Your task to perform on an android device: Go to Google Image 0: 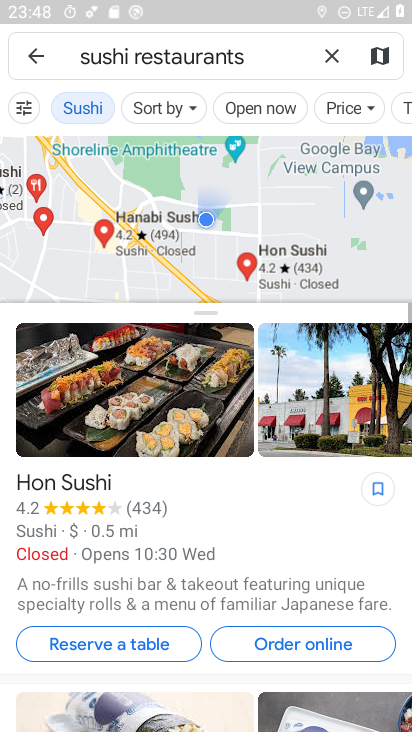
Step 0: press home button
Your task to perform on an android device: Go to Google Image 1: 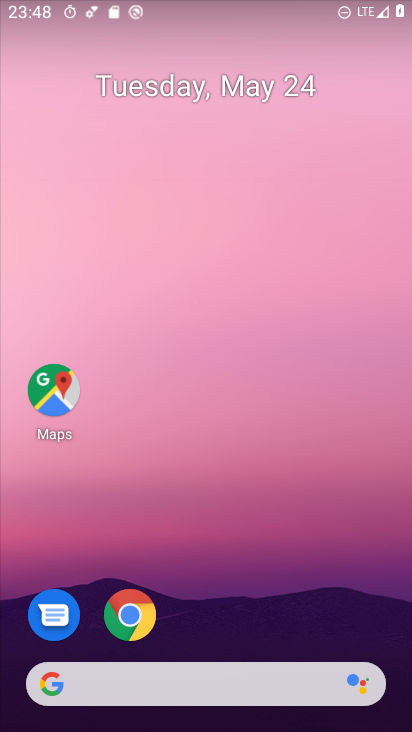
Step 1: drag from (225, 702) to (357, 2)
Your task to perform on an android device: Go to Google Image 2: 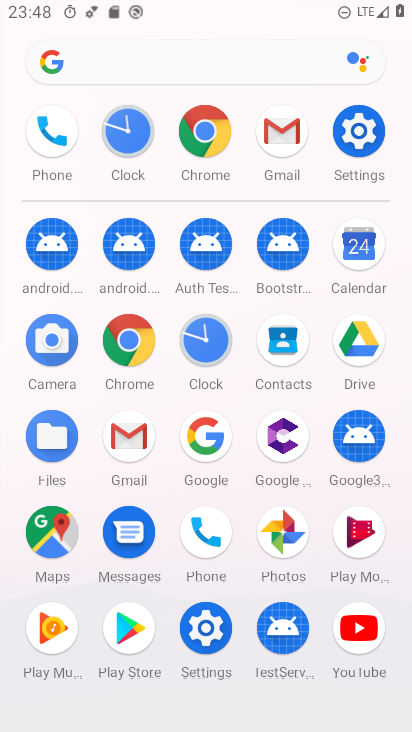
Step 2: click (50, 62)
Your task to perform on an android device: Go to Google Image 3: 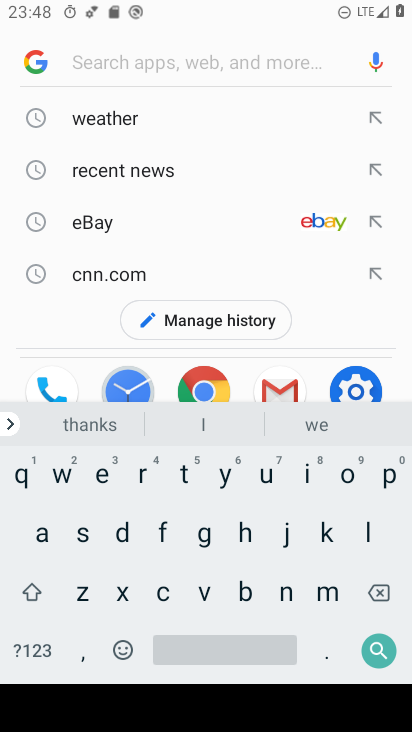
Step 3: click (37, 59)
Your task to perform on an android device: Go to Google Image 4: 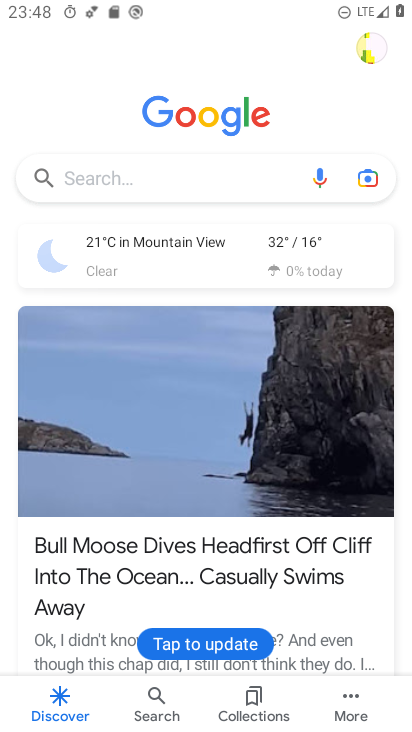
Step 4: task complete